Your task to perform on an android device: change the clock display to show seconds Image 0: 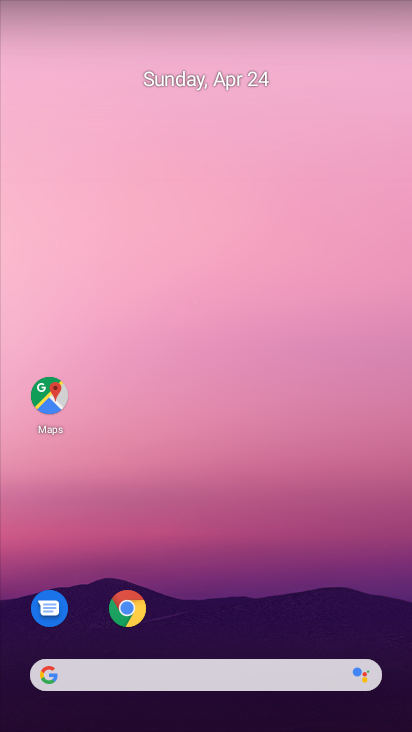
Step 0: drag from (279, 595) to (334, 86)
Your task to perform on an android device: change the clock display to show seconds Image 1: 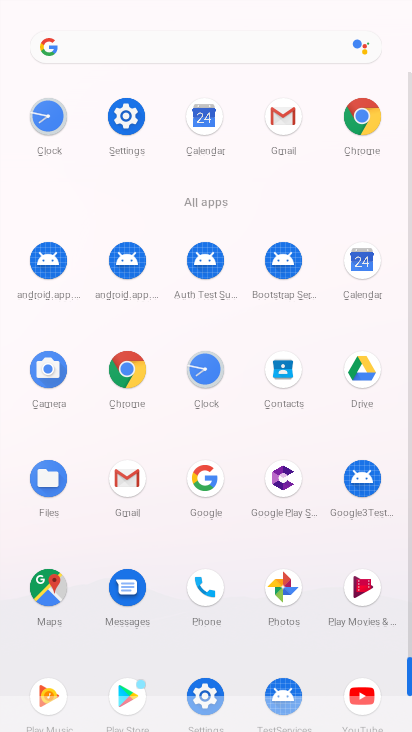
Step 1: click (208, 365)
Your task to perform on an android device: change the clock display to show seconds Image 2: 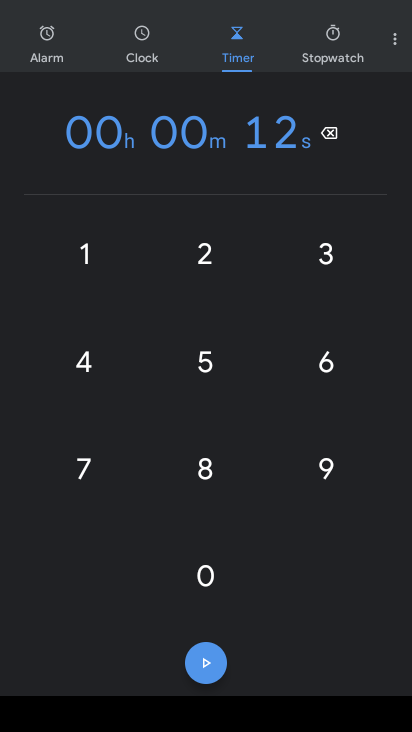
Step 2: click (396, 42)
Your task to perform on an android device: change the clock display to show seconds Image 3: 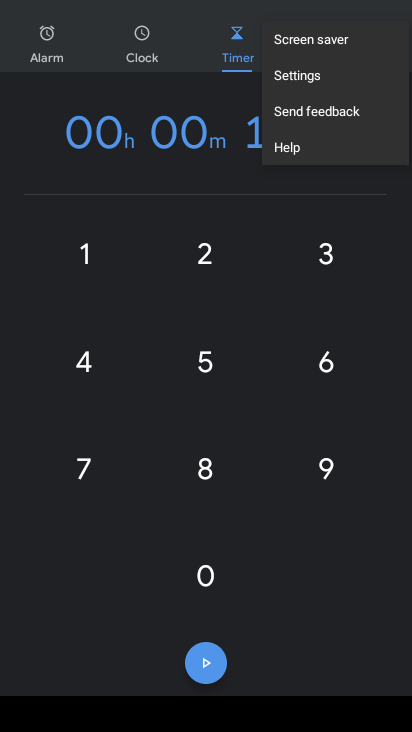
Step 3: click (351, 72)
Your task to perform on an android device: change the clock display to show seconds Image 4: 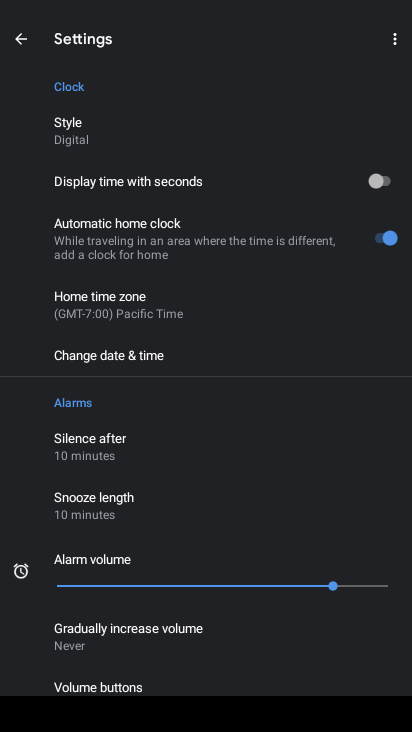
Step 4: click (380, 179)
Your task to perform on an android device: change the clock display to show seconds Image 5: 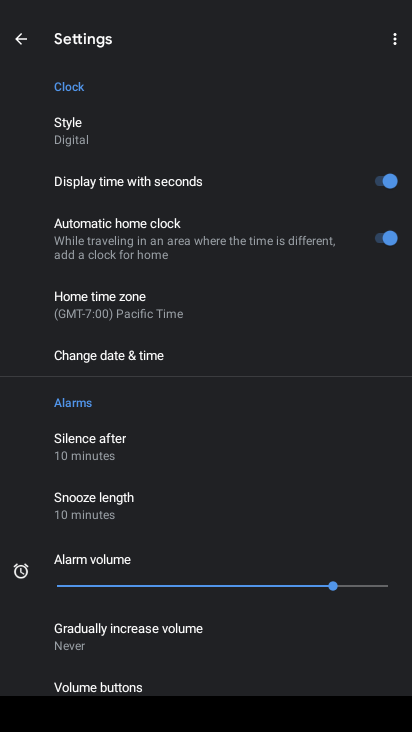
Step 5: task complete